Your task to perform on an android device: Open battery settings Image 0: 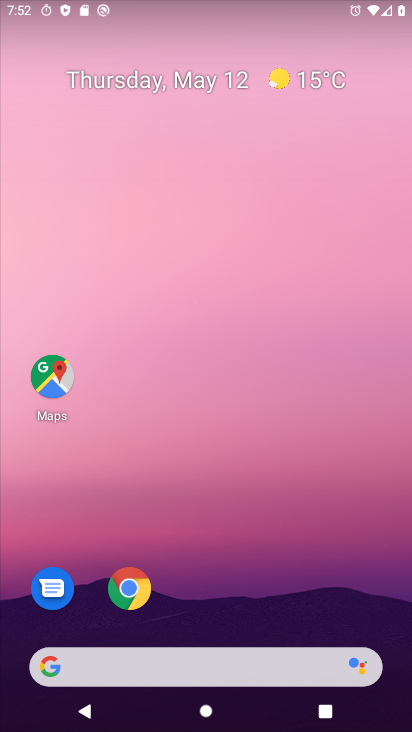
Step 0: drag from (180, 642) to (204, 295)
Your task to perform on an android device: Open battery settings Image 1: 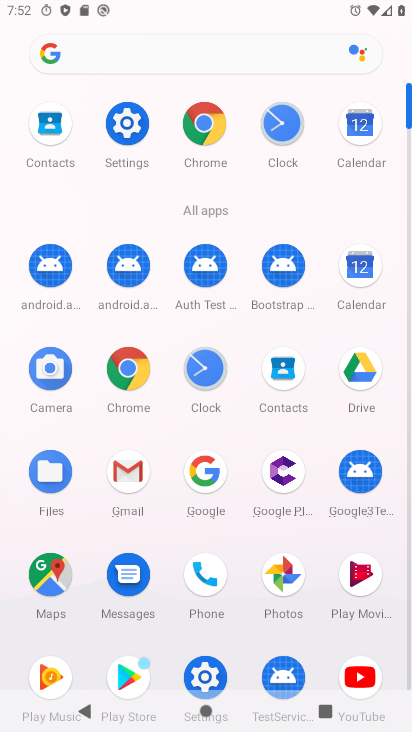
Step 1: click (132, 218)
Your task to perform on an android device: Open battery settings Image 2: 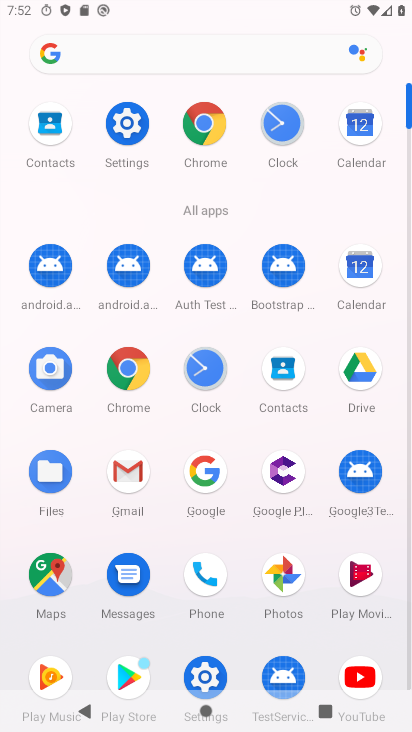
Step 2: click (134, 127)
Your task to perform on an android device: Open battery settings Image 3: 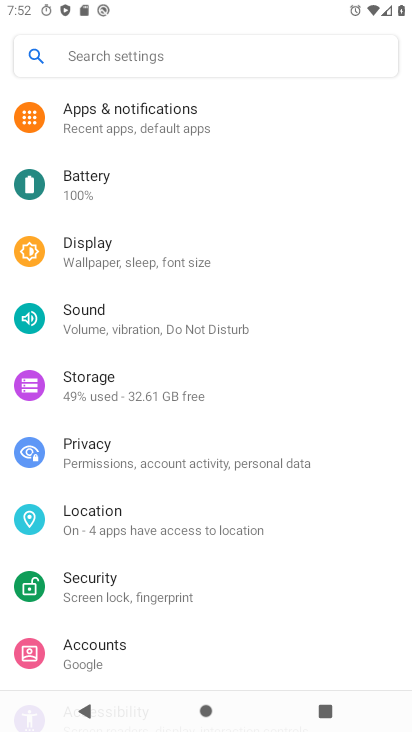
Step 3: click (135, 188)
Your task to perform on an android device: Open battery settings Image 4: 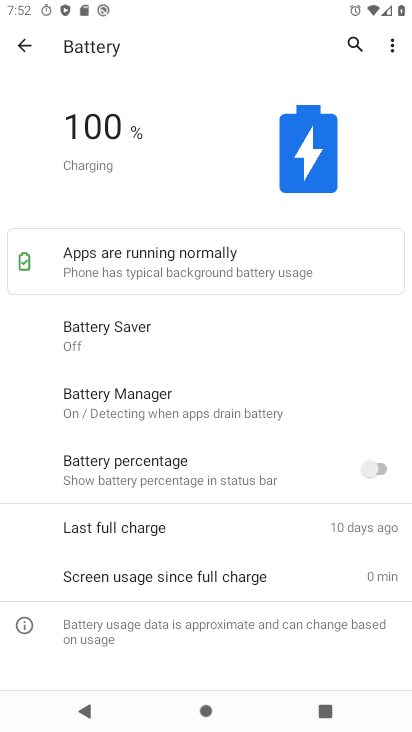
Step 4: task complete